Your task to perform on an android device: Open Youtube and go to "Your channel" Image 0: 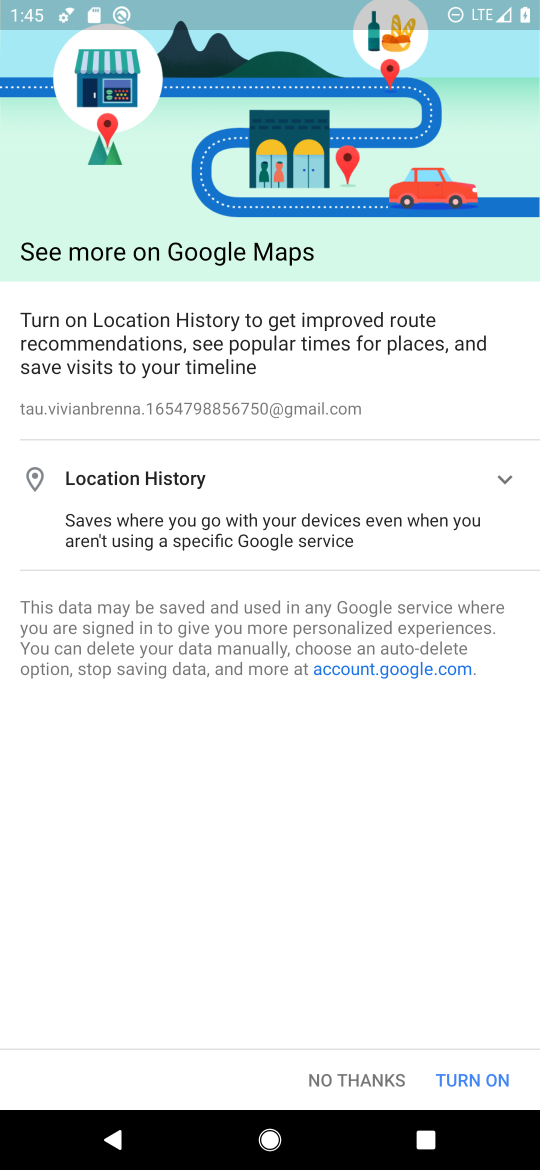
Step 0: press home button
Your task to perform on an android device: Open Youtube and go to "Your channel" Image 1: 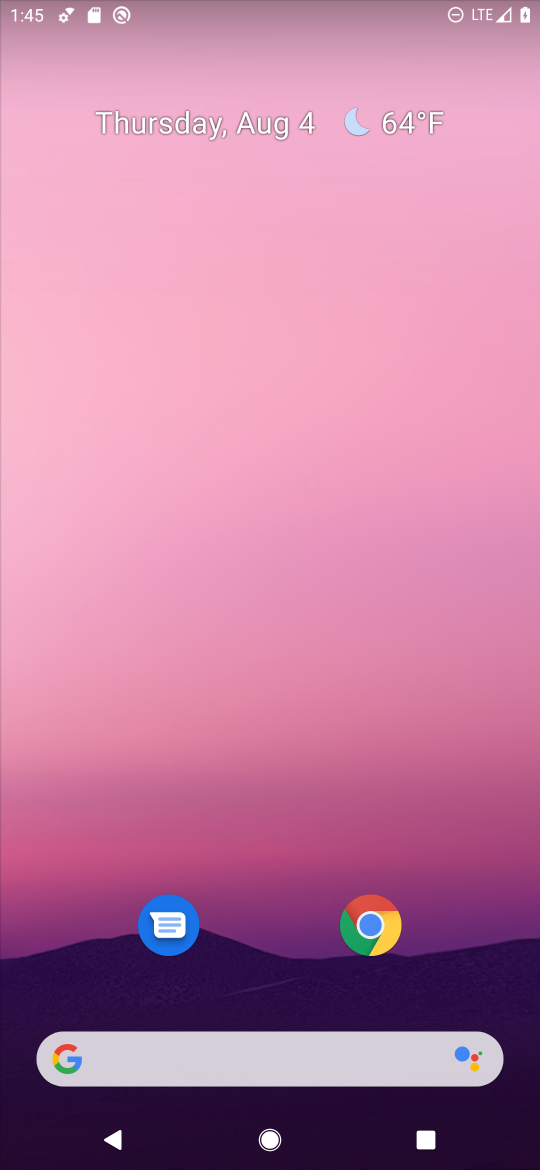
Step 1: drag from (260, 935) to (375, 57)
Your task to perform on an android device: Open Youtube and go to "Your channel" Image 2: 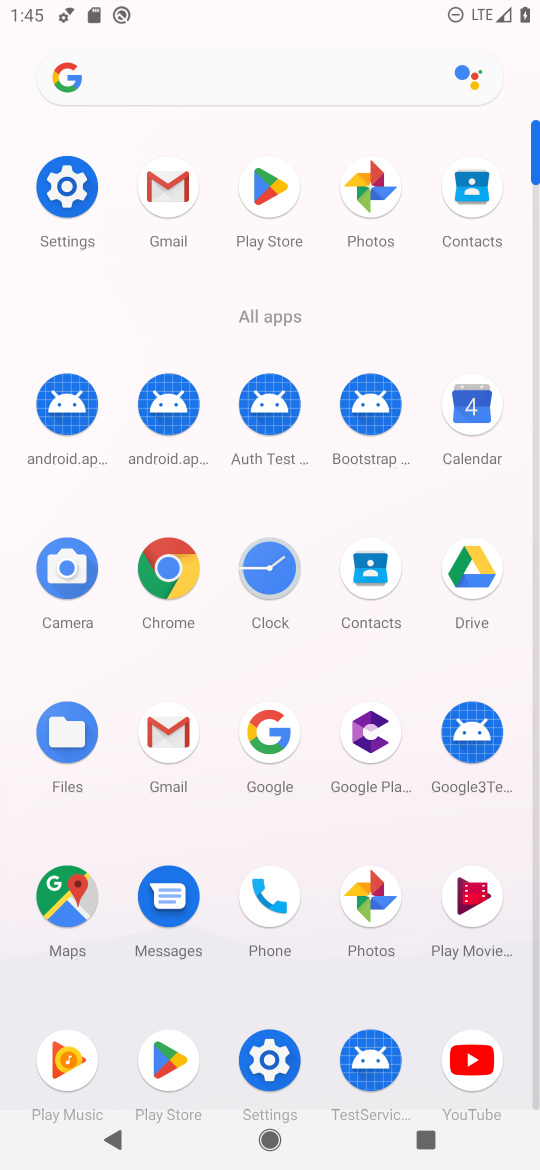
Step 2: click (465, 1063)
Your task to perform on an android device: Open Youtube and go to "Your channel" Image 3: 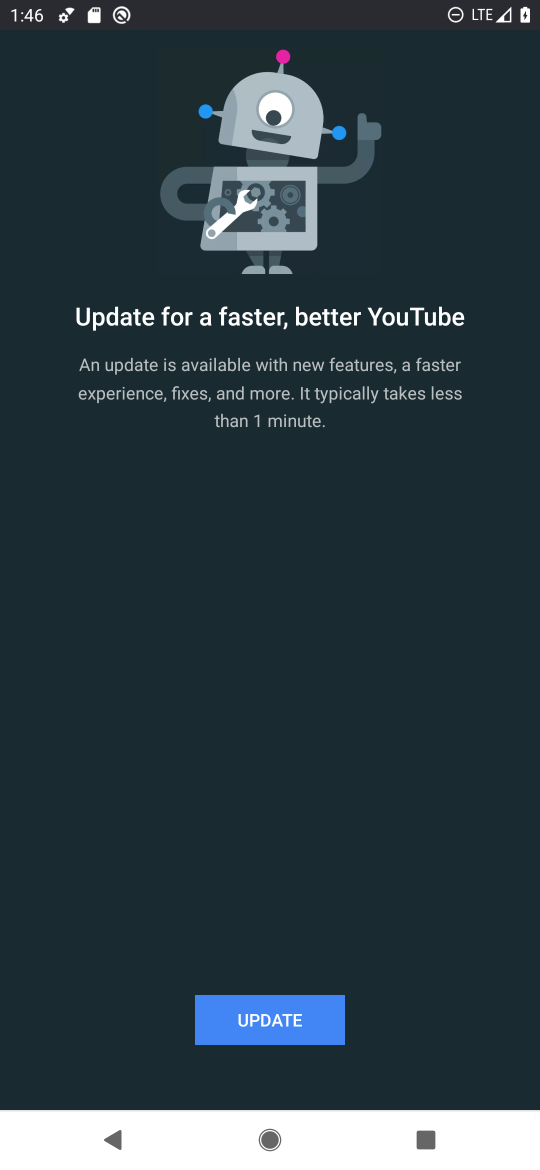
Step 3: task complete